Your task to perform on an android device: see creations saved in the google photos Image 0: 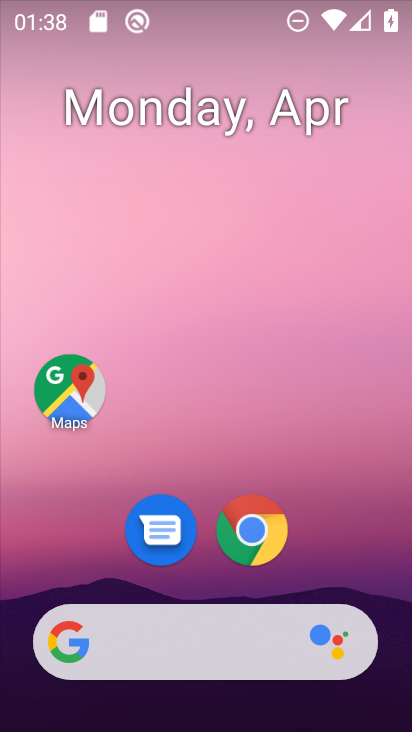
Step 0: drag from (335, 546) to (272, 23)
Your task to perform on an android device: see creations saved in the google photos Image 1: 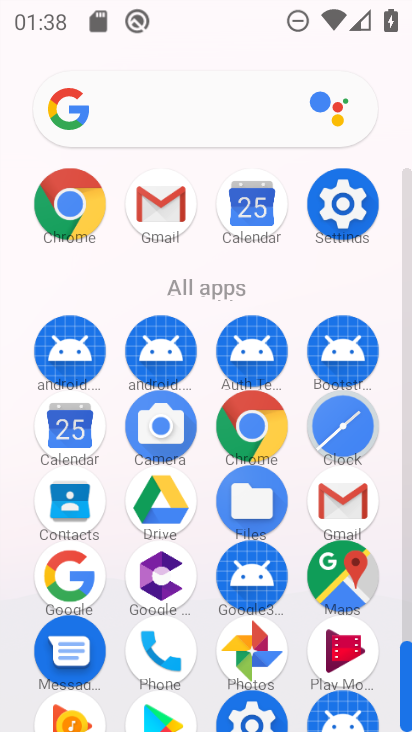
Step 1: click (252, 635)
Your task to perform on an android device: see creations saved in the google photos Image 2: 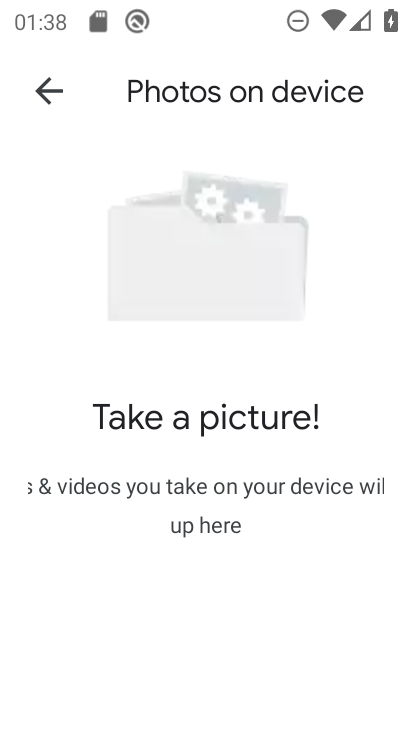
Step 2: click (48, 95)
Your task to perform on an android device: see creations saved in the google photos Image 3: 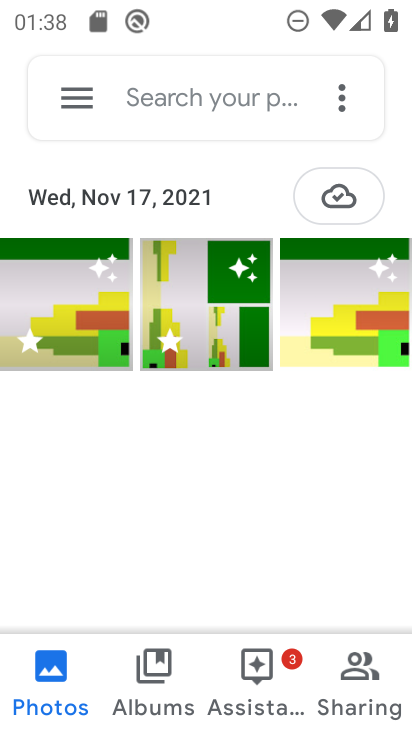
Step 3: click (169, 96)
Your task to perform on an android device: see creations saved in the google photos Image 4: 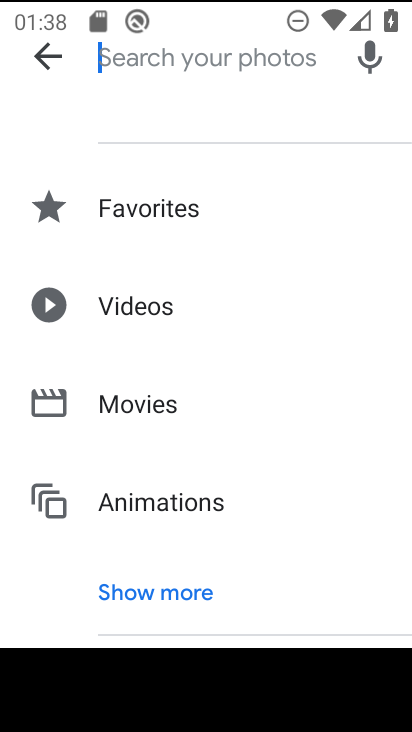
Step 4: click (170, 582)
Your task to perform on an android device: see creations saved in the google photos Image 5: 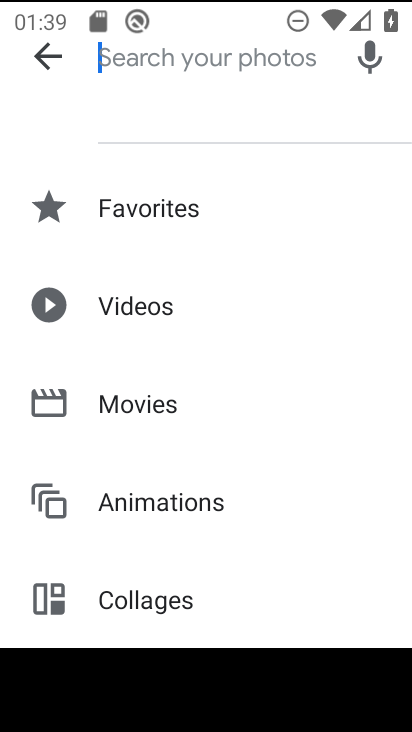
Step 5: drag from (178, 555) to (114, 131)
Your task to perform on an android device: see creations saved in the google photos Image 6: 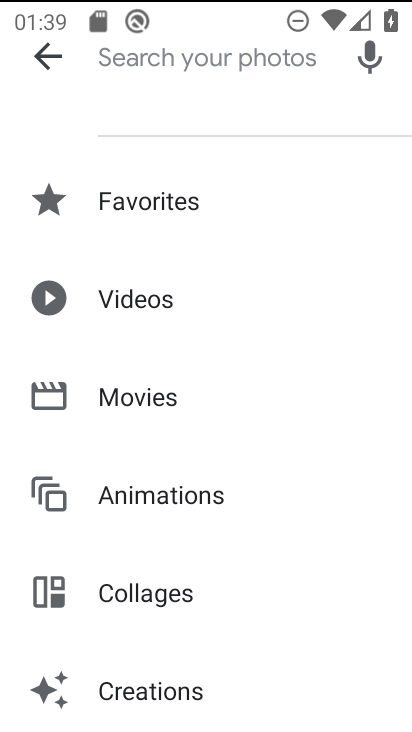
Step 6: click (155, 687)
Your task to perform on an android device: see creations saved in the google photos Image 7: 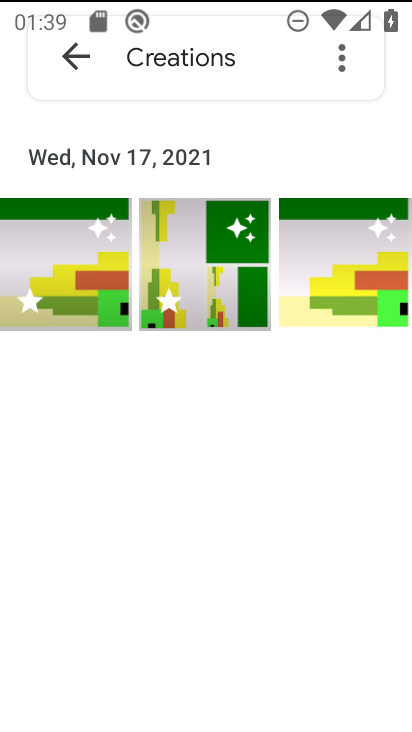
Step 7: task complete